Your task to perform on an android device: see tabs open on other devices in the chrome app Image 0: 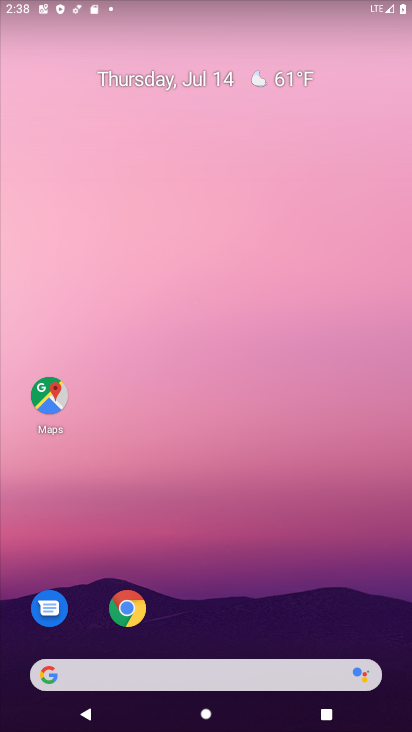
Step 0: drag from (262, 663) to (271, 320)
Your task to perform on an android device: see tabs open on other devices in the chrome app Image 1: 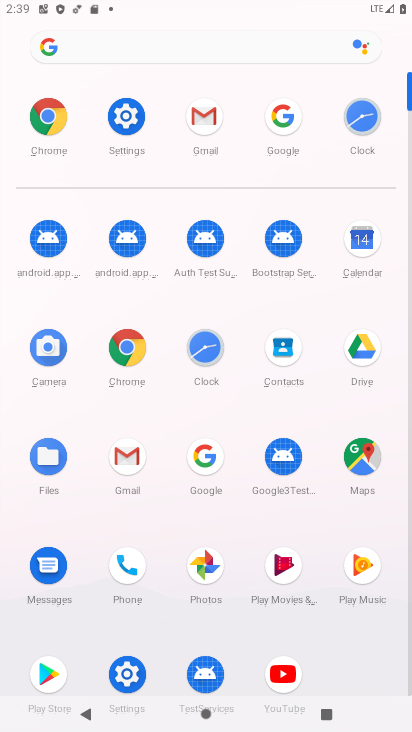
Step 1: click (32, 113)
Your task to perform on an android device: see tabs open on other devices in the chrome app Image 2: 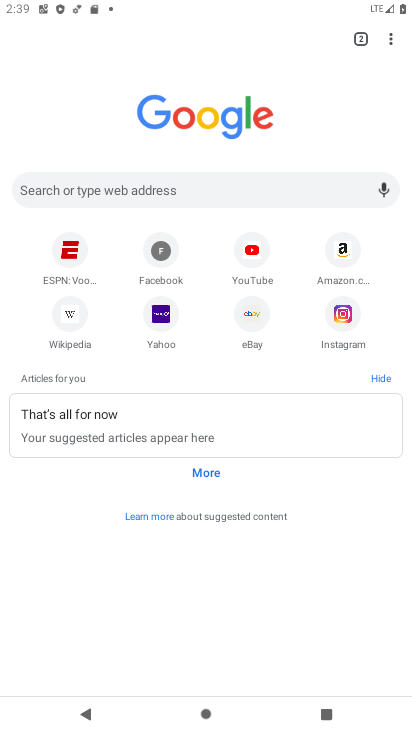
Step 2: click (359, 35)
Your task to perform on an android device: see tabs open on other devices in the chrome app Image 3: 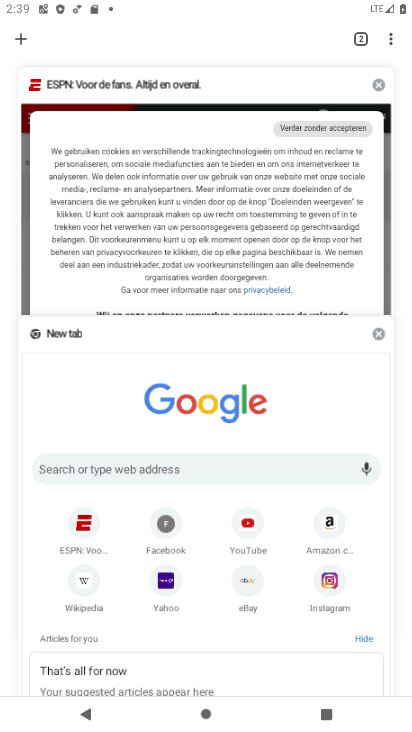
Step 3: task complete